Your task to perform on an android device: open sync settings in chrome Image 0: 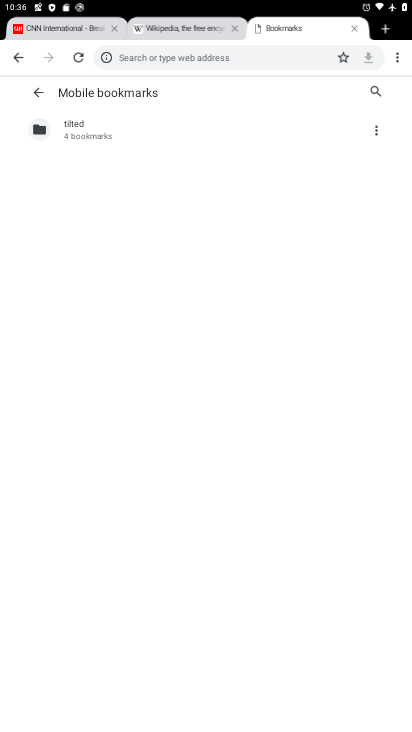
Step 0: drag from (392, 57) to (283, 294)
Your task to perform on an android device: open sync settings in chrome Image 1: 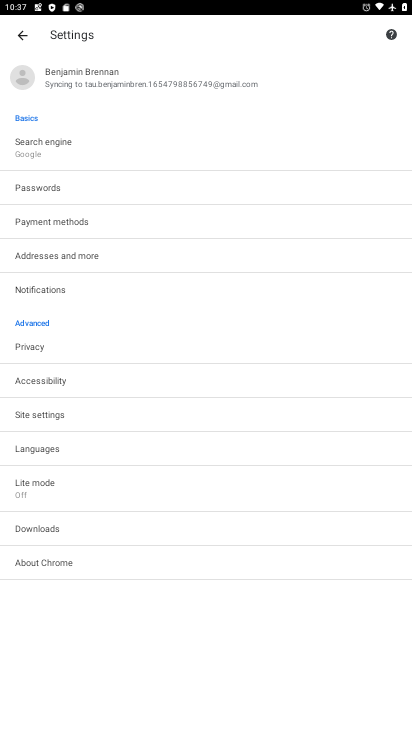
Step 1: click (44, 82)
Your task to perform on an android device: open sync settings in chrome Image 2: 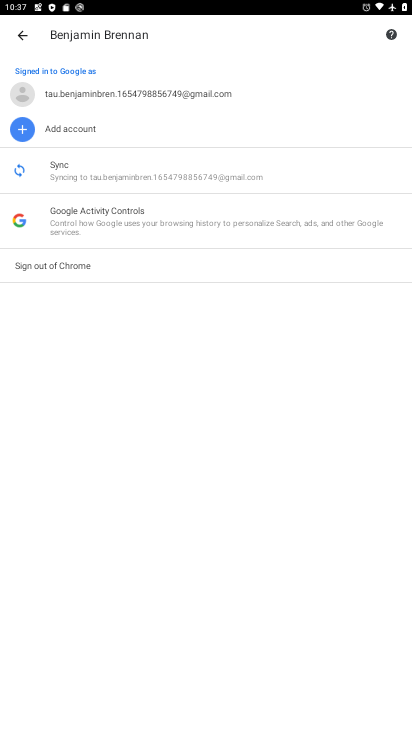
Step 2: click (99, 174)
Your task to perform on an android device: open sync settings in chrome Image 3: 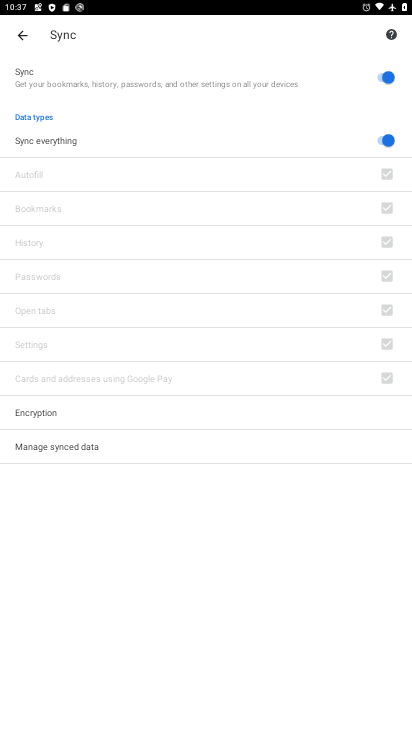
Step 3: task complete